Your task to perform on an android device: set an alarm Image 0: 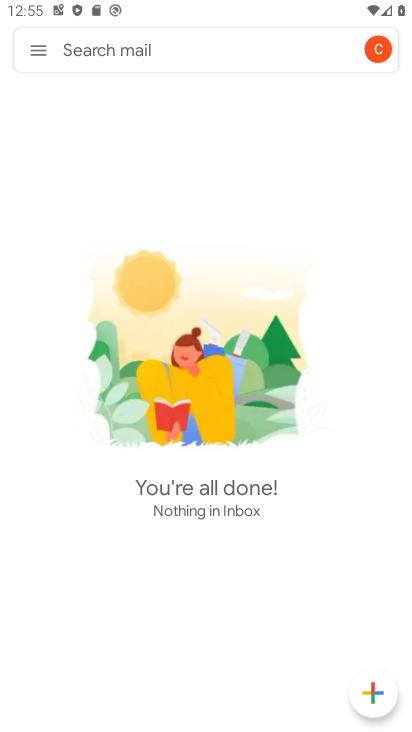
Step 0: press home button
Your task to perform on an android device: set an alarm Image 1: 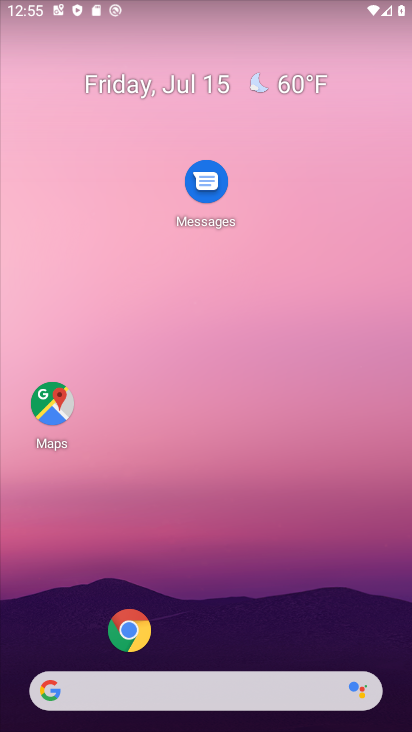
Step 1: click (198, 160)
Your task to perform on an android device: set an alarm Image 2: 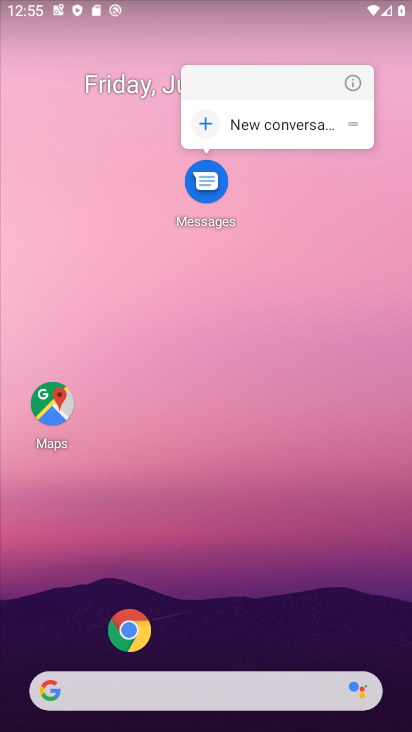
Step 2: drag from (30, 694) to (217, 71)
Your task to perform on an android device: set an alarm Image 3: 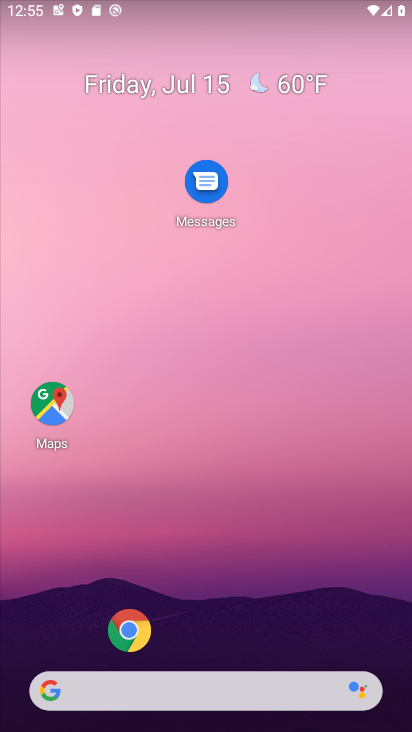
Step 3: drag from (36, 647) to (199, 60)
Your task to perform on an android device: set an alarm Image 4: 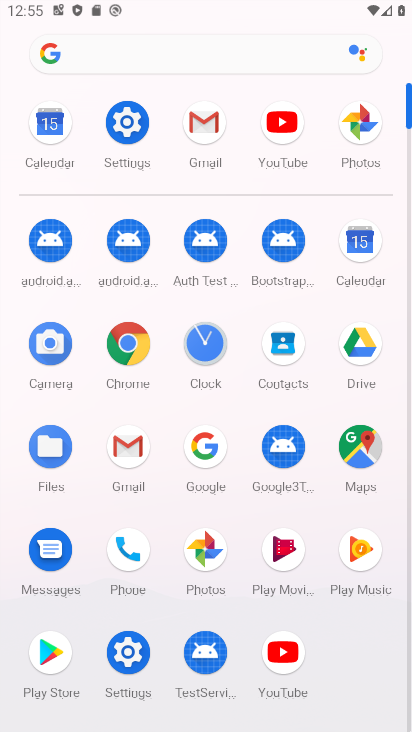
Step 4: click (202, 337)
Your task to perform on an android device: set an alarm Image 5: 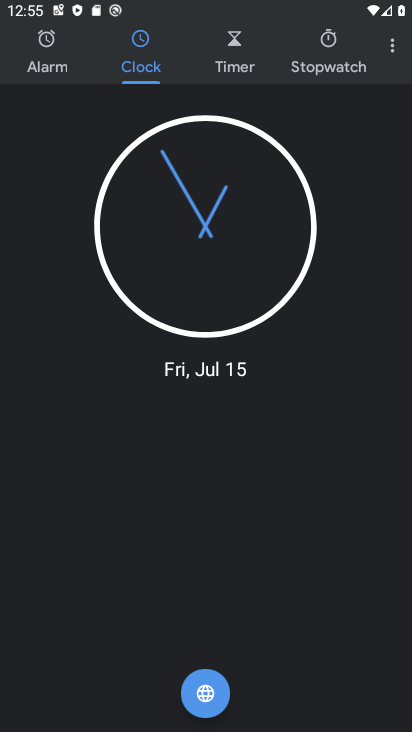
Step 5: click (36, 60)
Your task to perform on an android device: set an alarm Image 6: 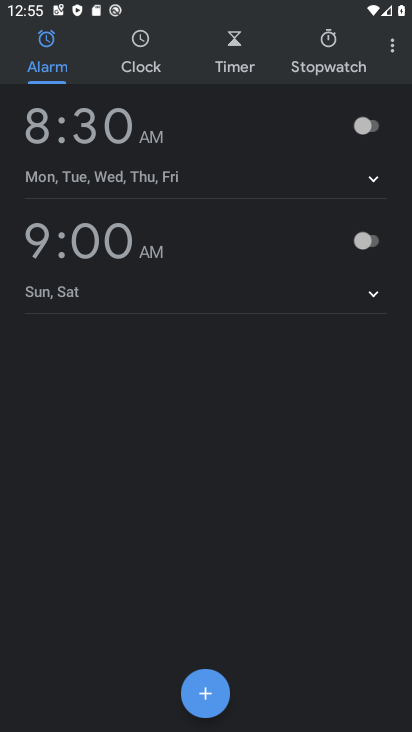
Step 6: click (288, 109)
Your task to perform on an android device: set an alarm Image 7: 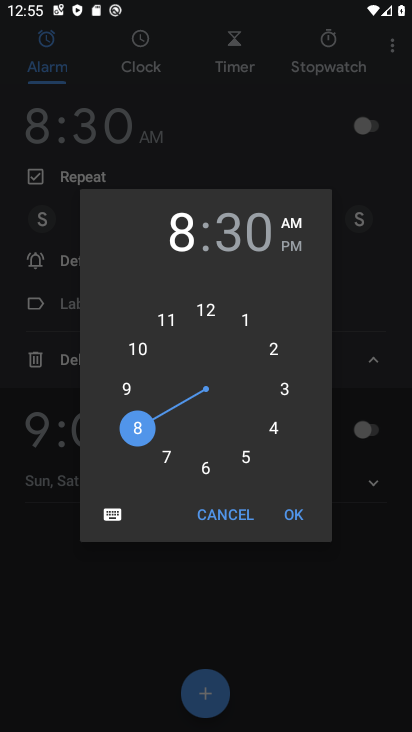
Step 7: click (362, 124)
Your task to perform on an android device: set an alarm Image 8: 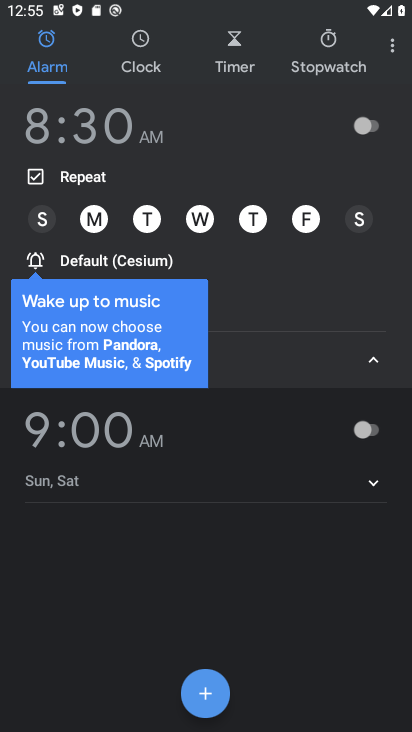
Step 8: click (322, 563)
Your task to perform on an android device: set an alarm Image 9: 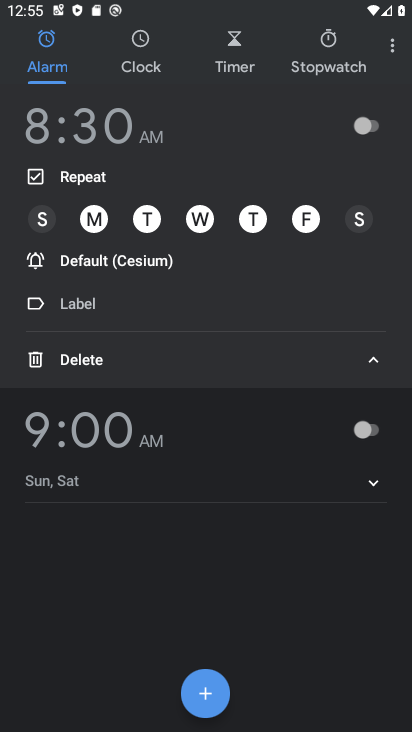
Step 9: click (371, 358)
Your task to perform on an android device: set an alarm Image 10: 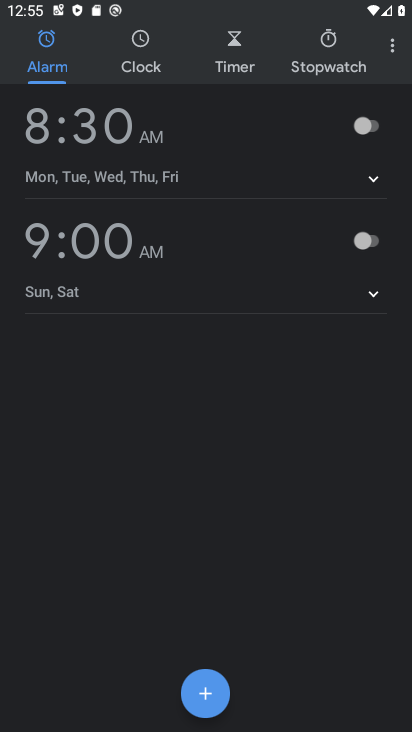
Step 10: click (372, 120)
Your task to perform on an android device: set an alarm Image 11: 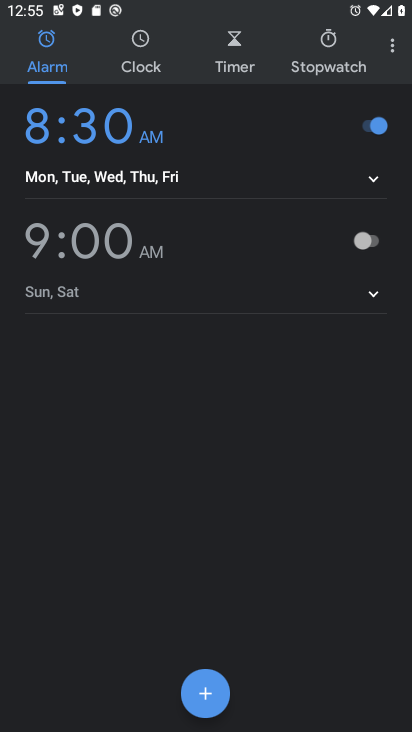
Step 11: task complete